Your task to perform on an android device: Go to ESPN.com Image 0: 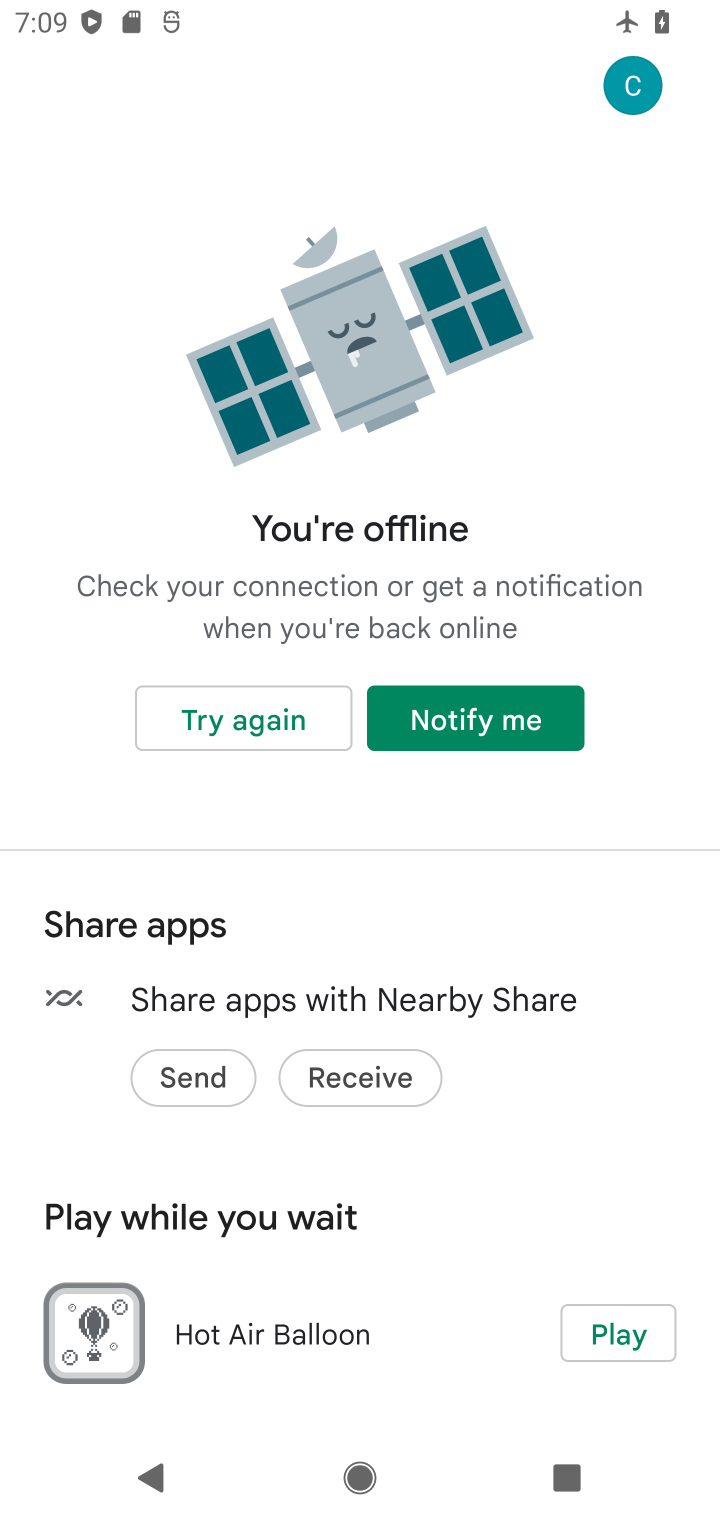
Step 0: press home button
Your task to perform on an android device: Go to ESPN.com Image 1: 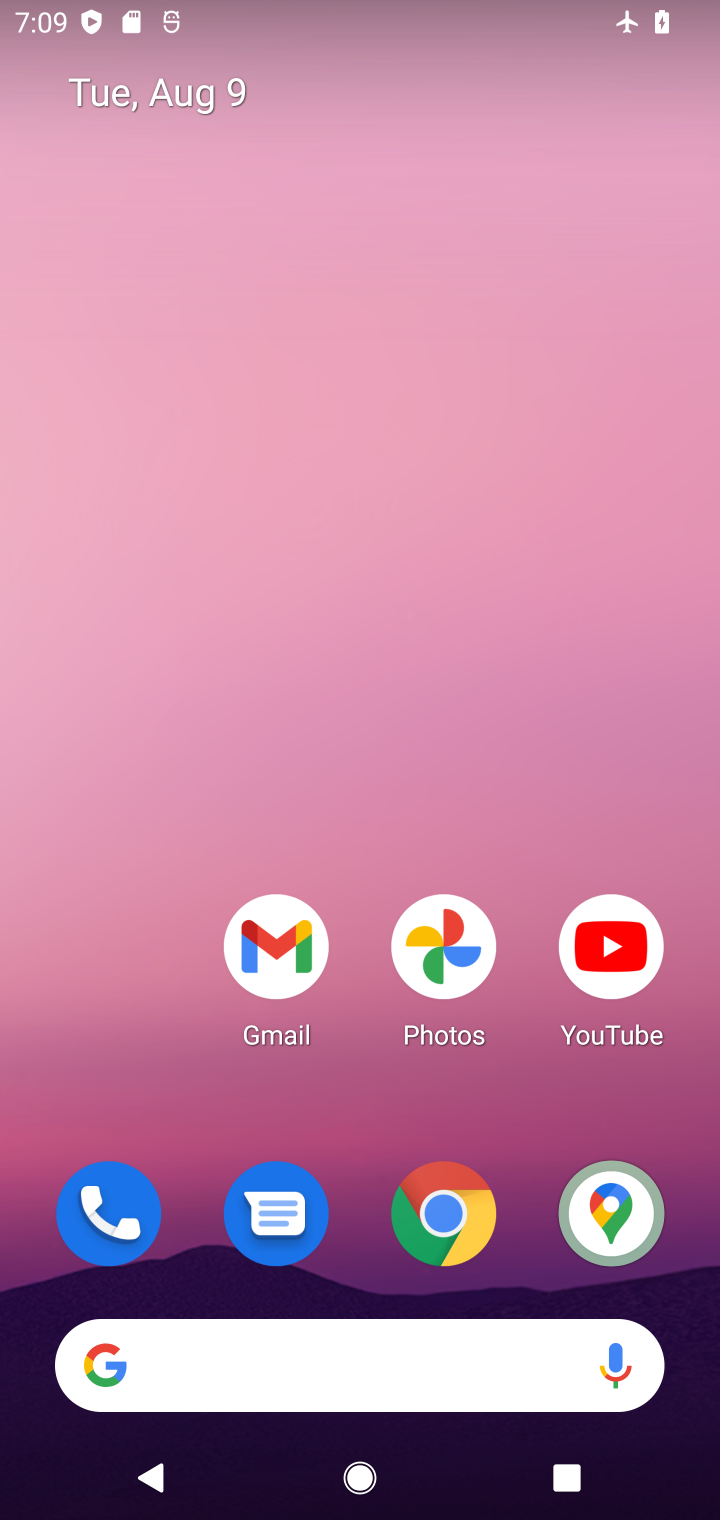
Step 1: click (423, 1236)
Your task to perform on an android device: Go to ESPN.com Image 2: 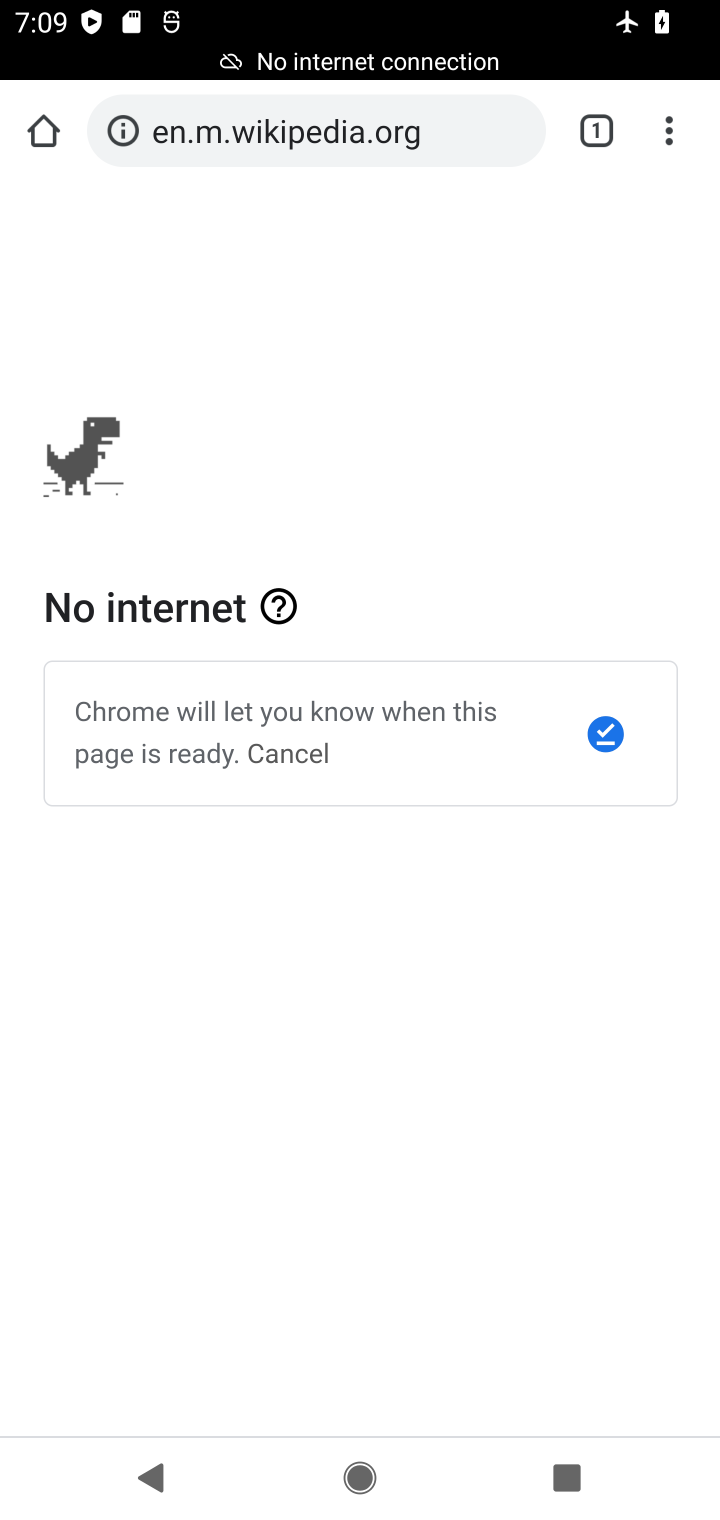
Step 2: click (607, 132)
Your task to perform on an android device: Go to ESPN.com Image 3: 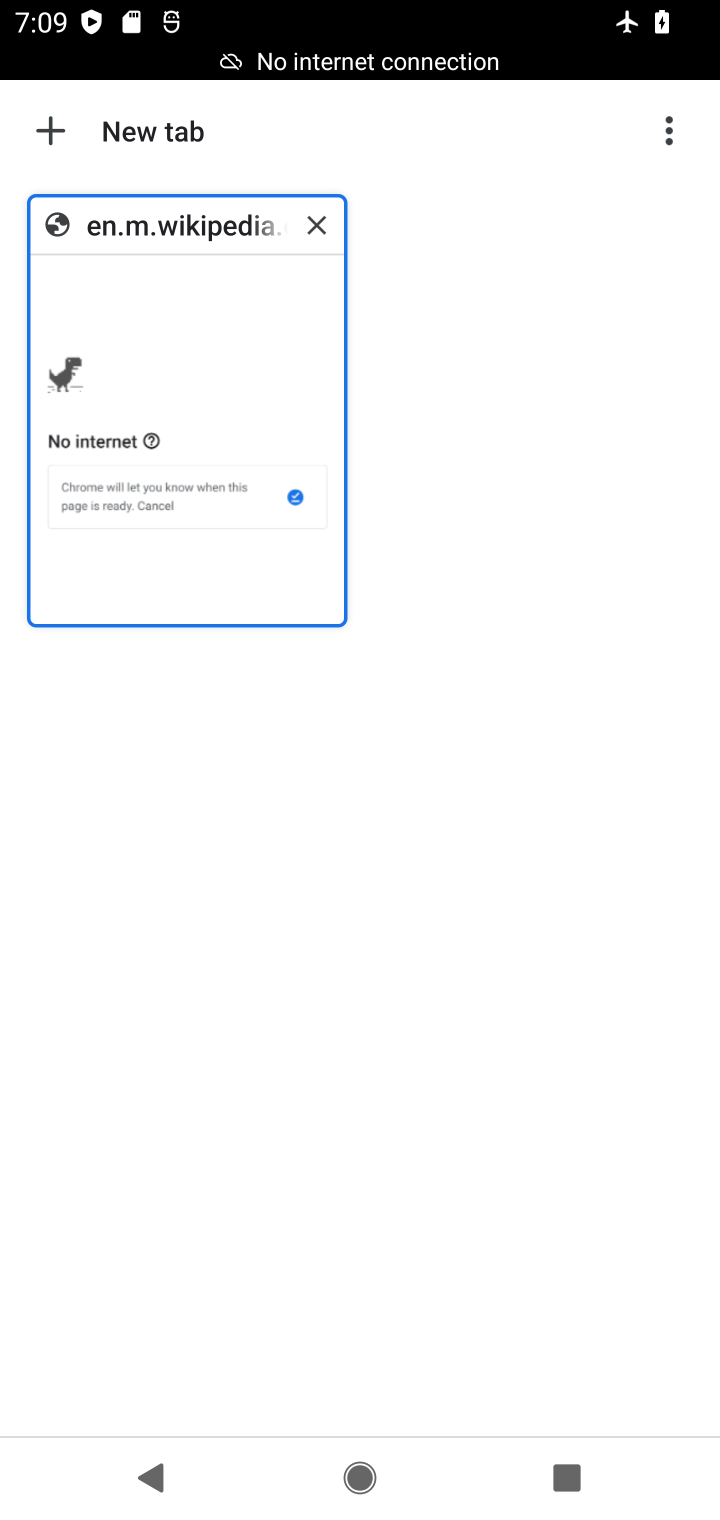
Step 3: click (59, 136)
Your task to perform on an android device: Go to ESPN.com Image 4: 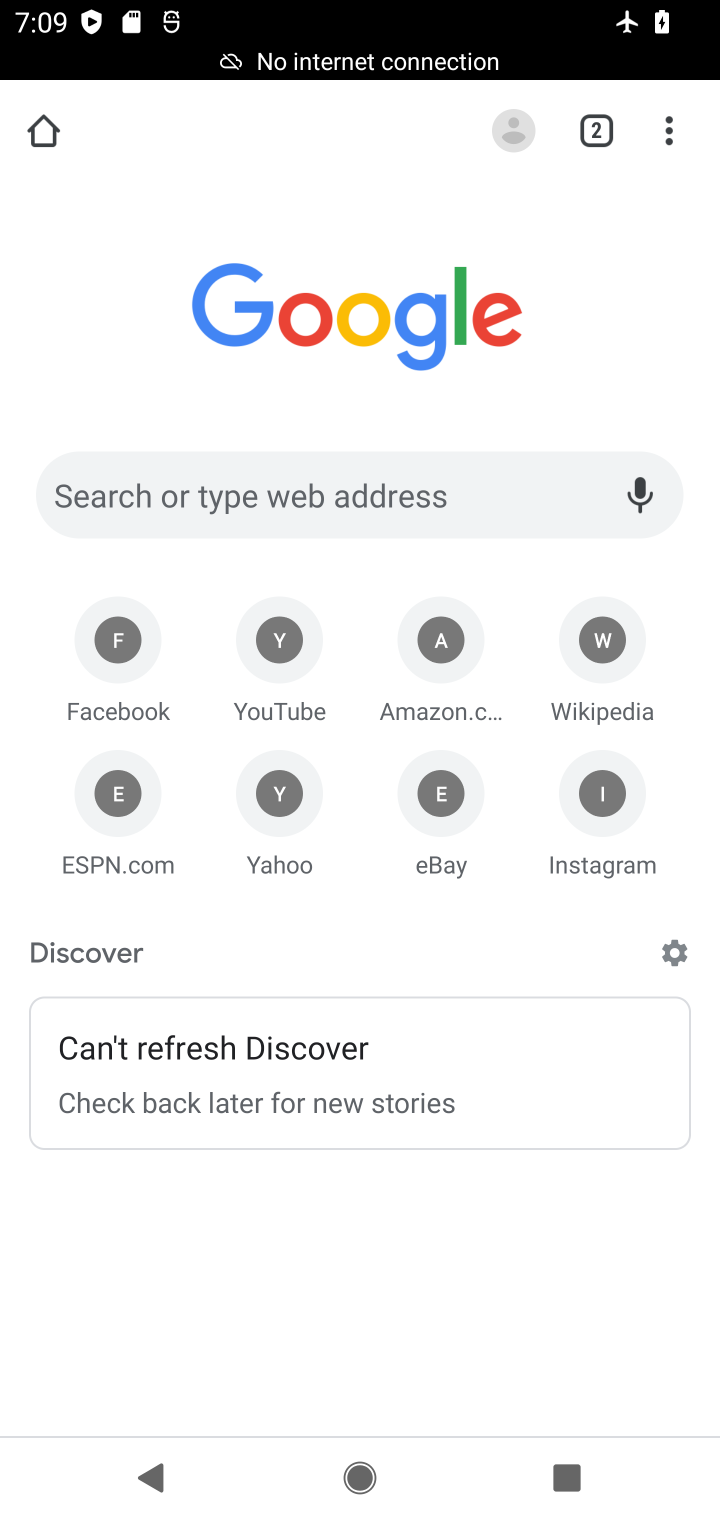
Step 4: click (113, 799)
Your task to perform on an android device: Go to ESPN.com Image 5: 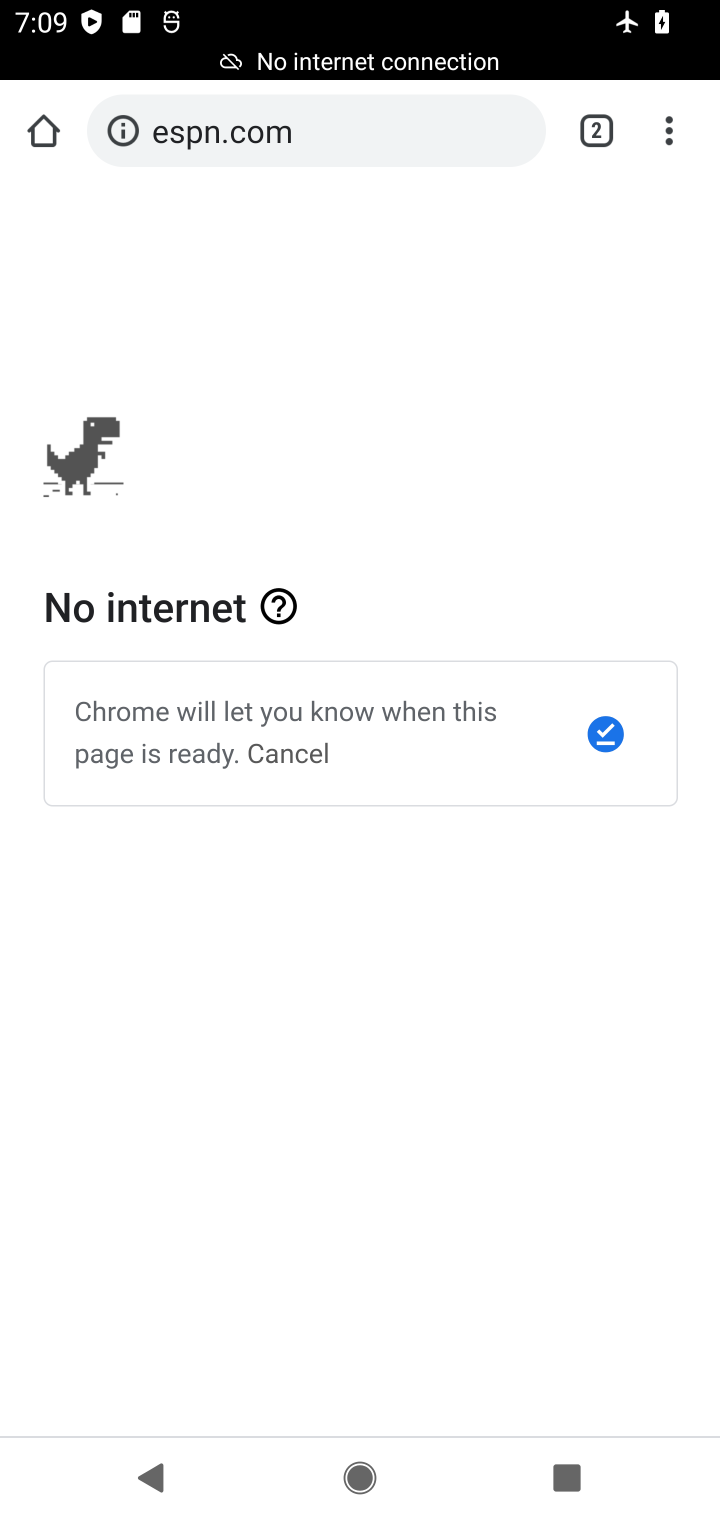
Step 5: task complete